Your task to perform on an android device: Go to Google maps Image 0: 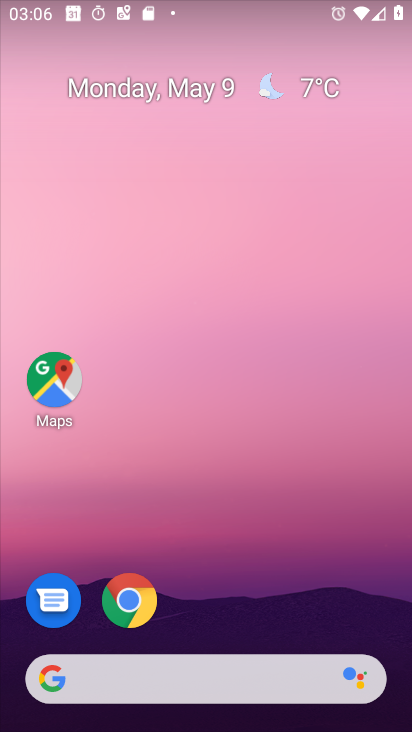
Step 0: click (66, 386)
Your task to perform on an android device: Go to Google maps Image 1: 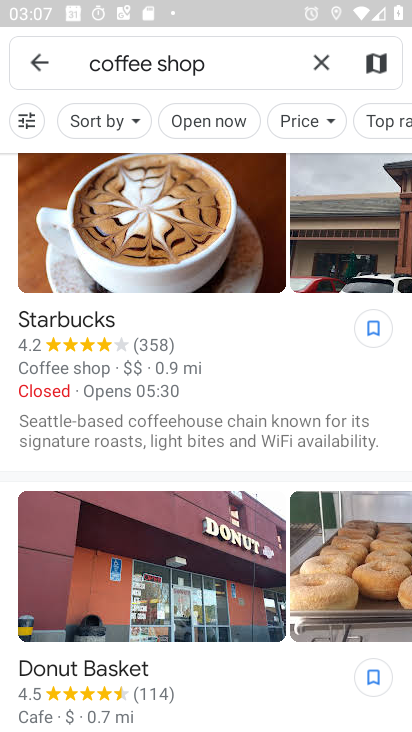
Step 1: click (52, 53)
Your task to perform on an android device: Go to Google maps Image 2: 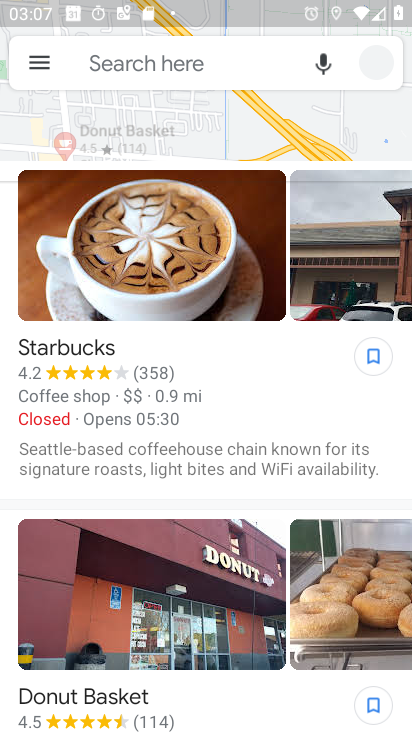
Step 2: click (323, 56)
Your task to perform on an android device: Go to Google maps Image 3: 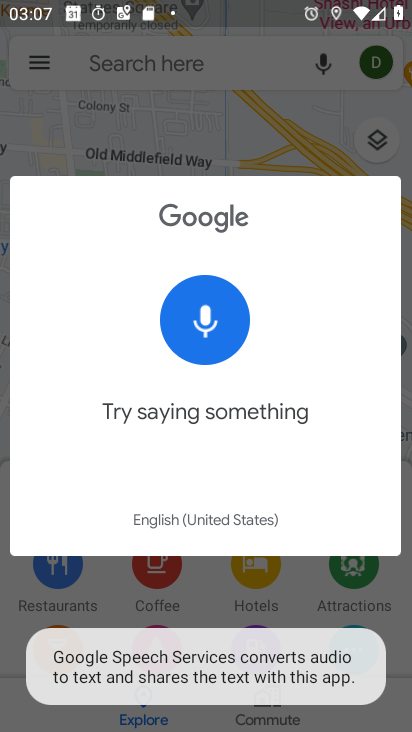
Step 3: click (124, 149)
Your task to perform on an android device: Go to Google maps Image 4: 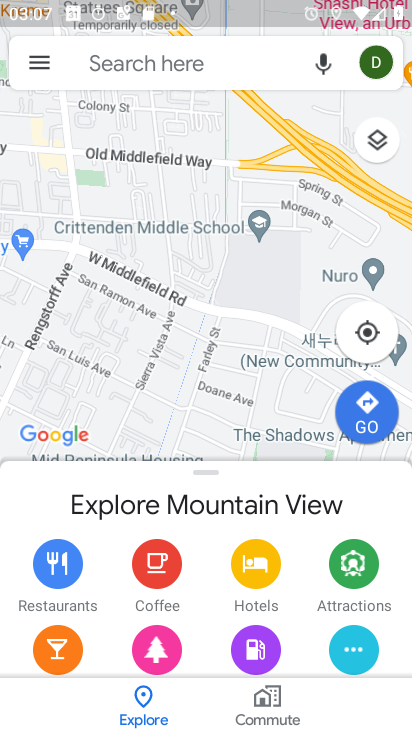
Step 4: task complete